Your task to perform on an android device: remove spam from my inbox in the gmail app Image 0: 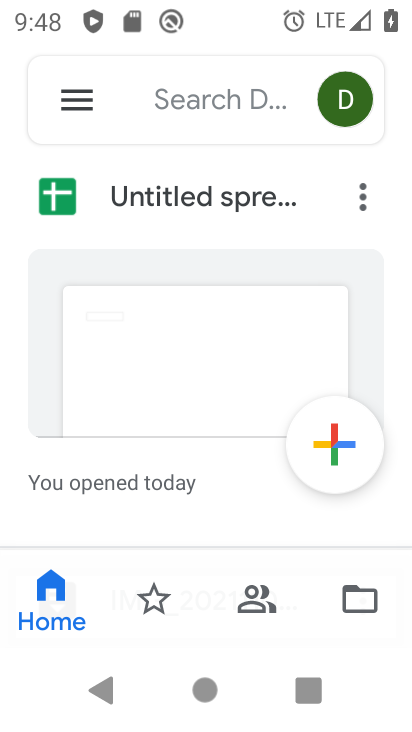
Step 0: drag from (233, 457) to (347, 60)
Your task to perform on an android device: remove spam from my inbox in the gmail app Image 1: 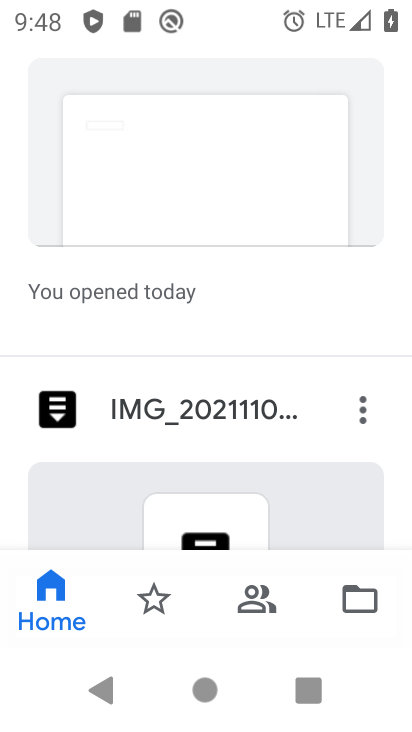
Step 1: drag from (228, 499) to (326, 248)
Your task to perform on an android device: remove spam from my inbox in the gmail app Image 2: 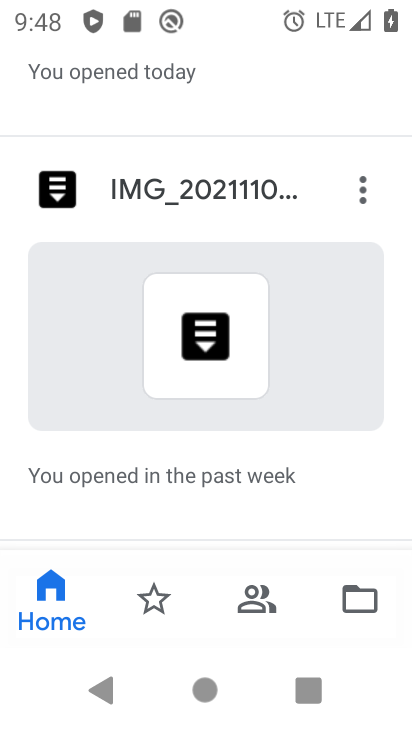
Step 2: drag from (277, 544) to (371, 241)
Your task to perform on an android device: remove spam from my inbox in the gmail app Image 3: 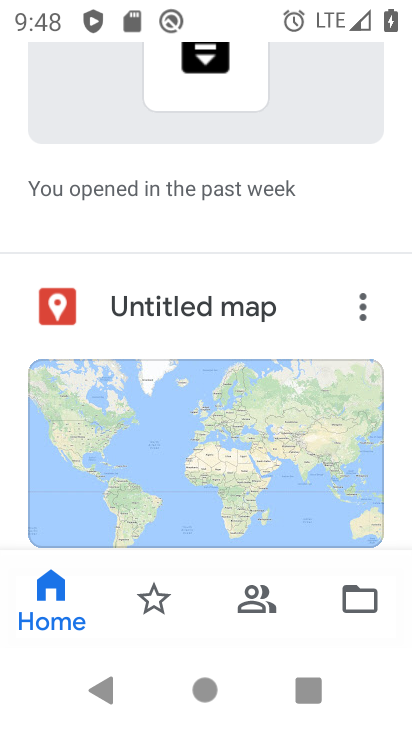
Step 3: drag from (324, 239) to (409, 602)
Your task to perform on an android device: remove spam from my inbox in the gmail app Image 4: 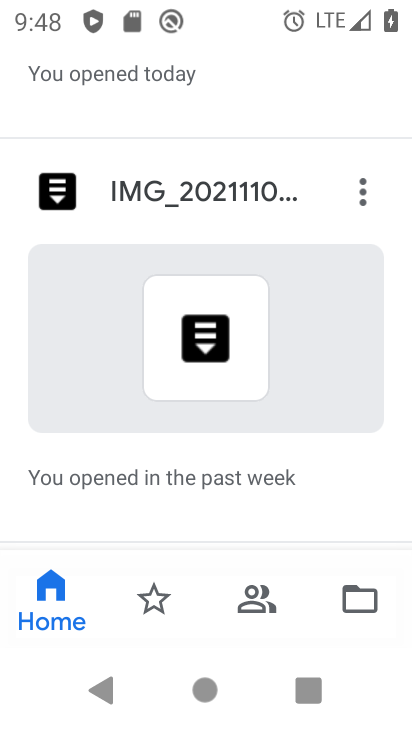
Step 4: press home button
Your task to perform on an android device: remove spam from my inbox in the gmail app Image 5: 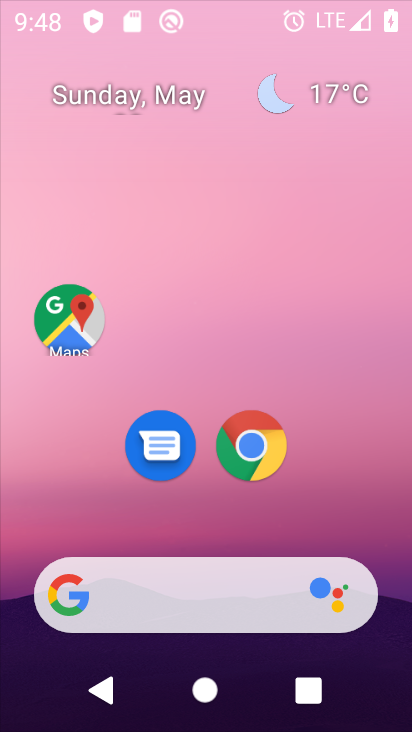
Step 5: drag from (223, 508) to (412, 134)
Your task to perform on an android device: remove spam from my inbox in the gmail app Image 6: 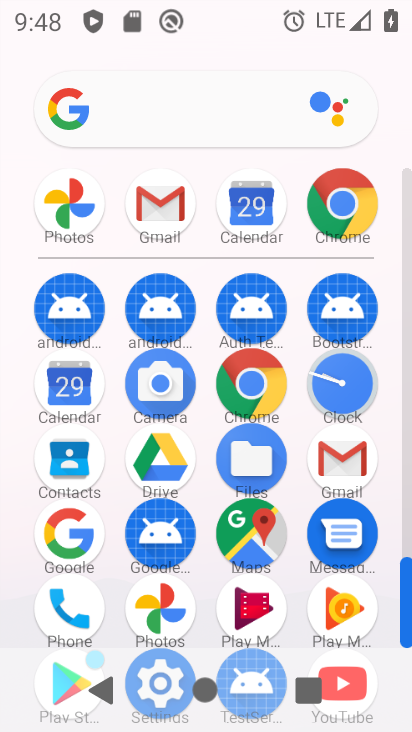
Step 6: drag from (216, 576) to (263, 242)
Your task to perform on an android device: remove spam from my inbox in the gmail app Image 7: 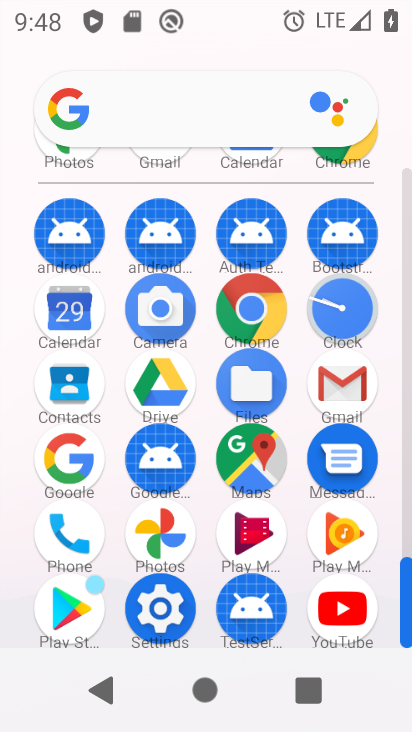
Step 7: click (342, 385)
Your task to perform on an android device: remove spam from my inbox in the gmail app Image 8: 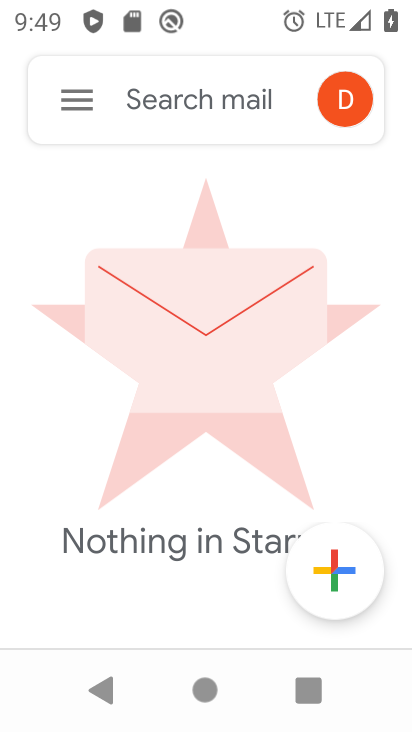
Step 8: click (91, 114)
Your task to perform on an android device: remove spam from my inbox in the gmail app Image 9: 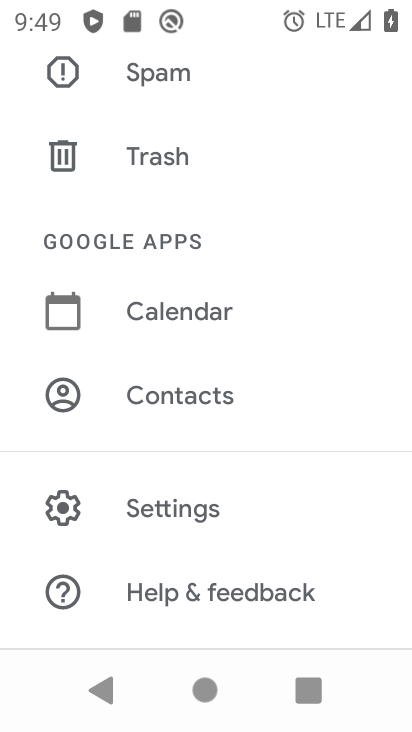
Step 9: click (161, 75)
Your task to perform on an android device: remove spam from my inbox in the gmail app Image 10: 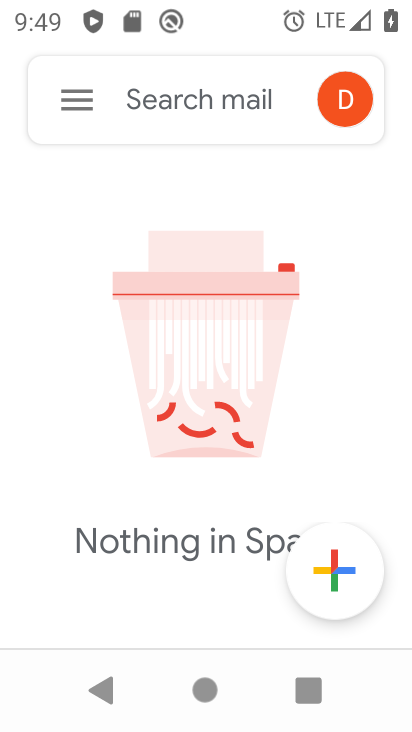
Step 10: task complete